Your task to perform on an android device: Open sound settings Image 0: 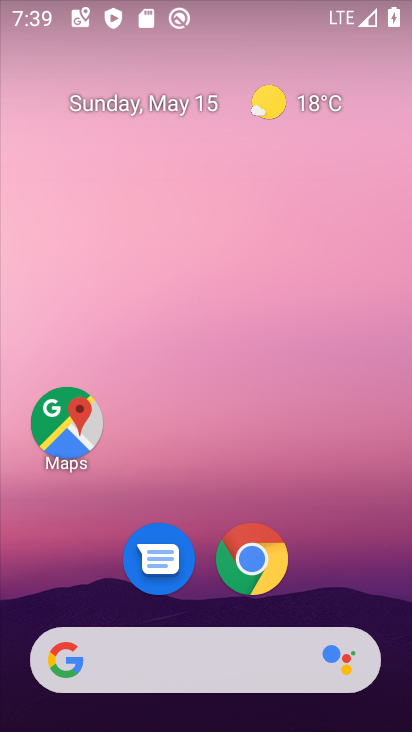
Step 0: drag from (316, 504) to (227, 30)
Your task to perform on an android device: Open sound settings Image 1: 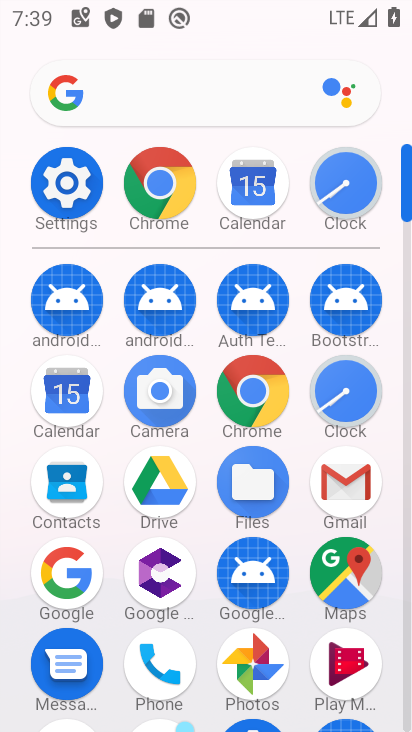
Step 1: click (66, 178)
Your task to perform on an android device: Open sound settings Image 2: 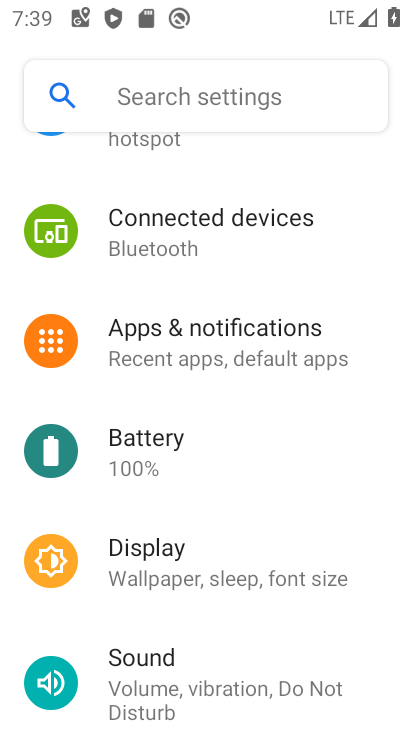
Step 2: click (142, 665)
Your task to perform on an android device: Open sound settings Image 3: 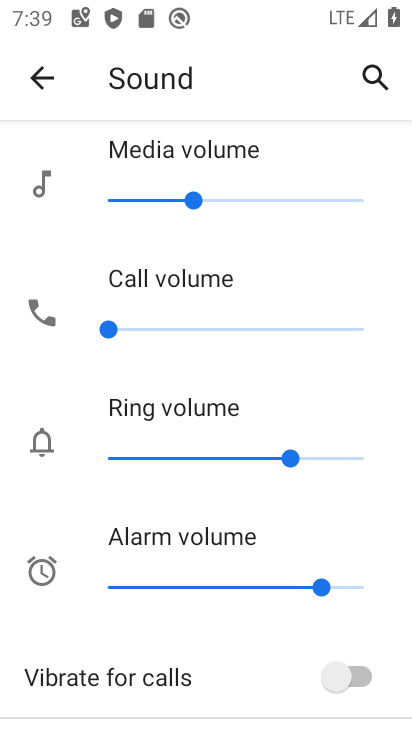
Step 3: task complete